Your task to perform on an android device: change the upload size in google photos Image 0: 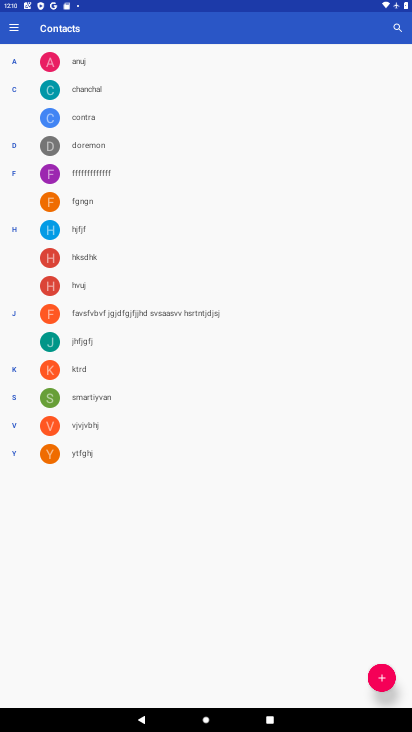
Step 0: press home button
Your task to perform on an android device: change the upload size in google photos Image 1: 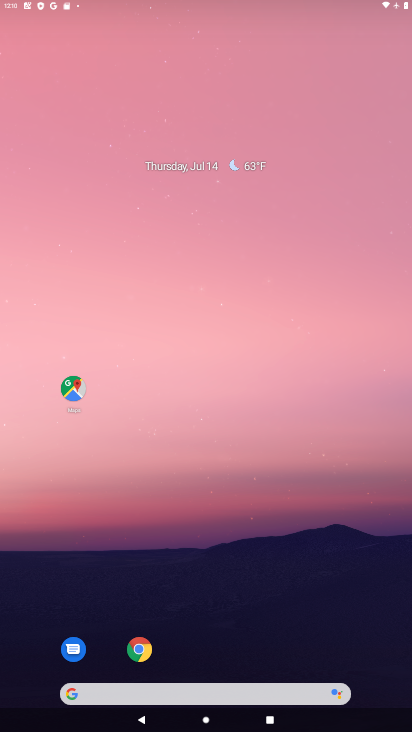
Step 1: drag from (187, 668) to (198, 322)
Your task to perform on an android device: change the upload size in google photos Image 2: 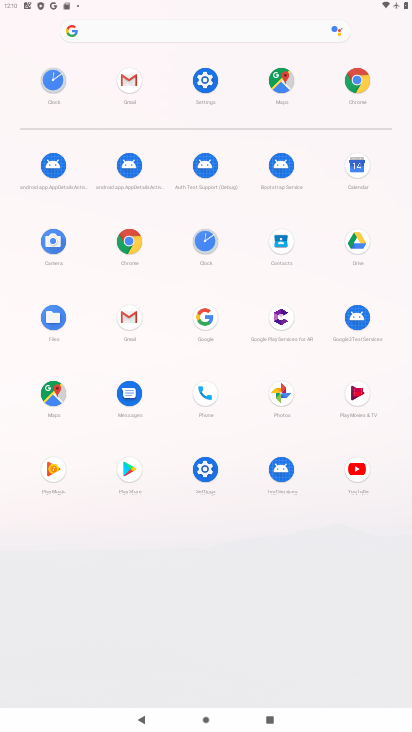
Step 2: click (286, 386)
Your task to perform on an android device: change the upload size in google photos Image 3: 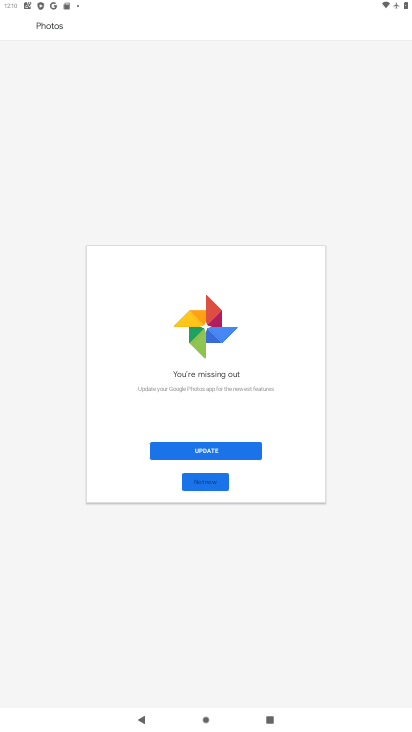
Step 3: click (216, 472)
Your task to perform on an android device: change the upload size in google photos Image 4: 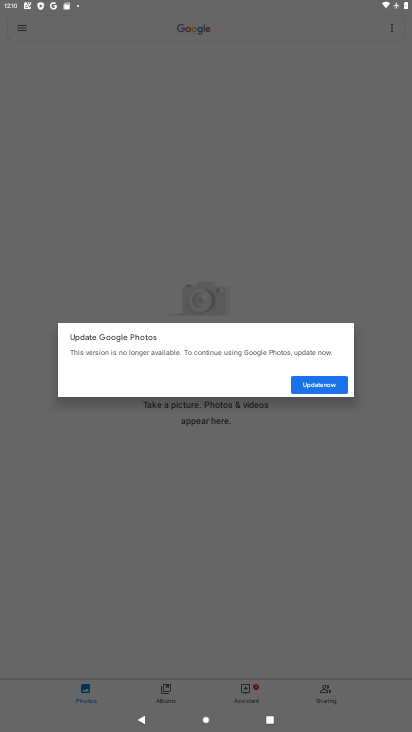
Step 4: click (304, 375)
Your task to perform on an android device: change the upload size in google photos Image 5: 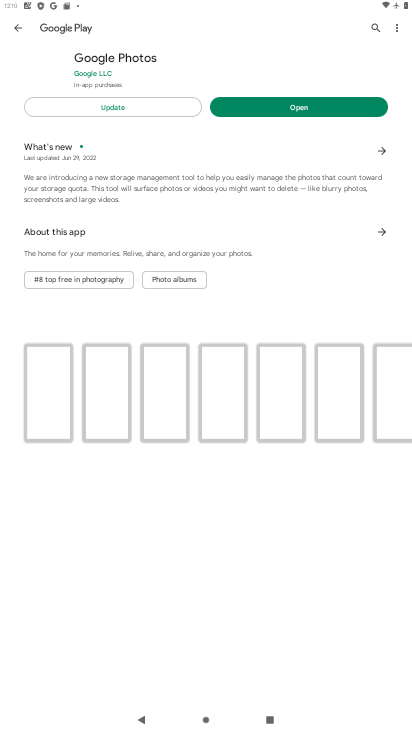
Step 5: press back button
Your task to perform on an android device: change the upload size in google photos Image 6: 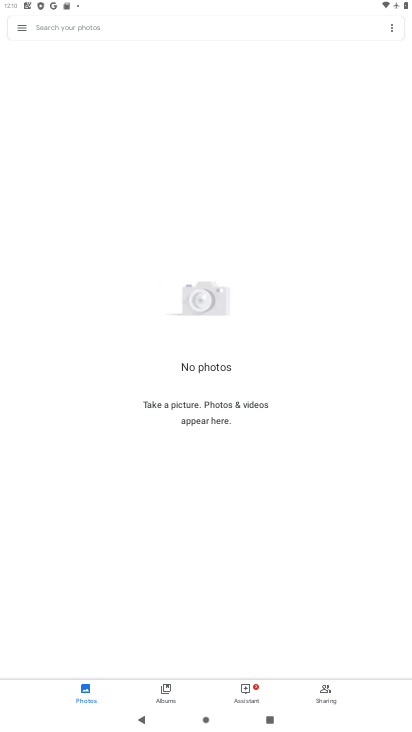
Step 6: click (16, 24)
Your task to perform on an android device: change the upload size in google photos Image 7: 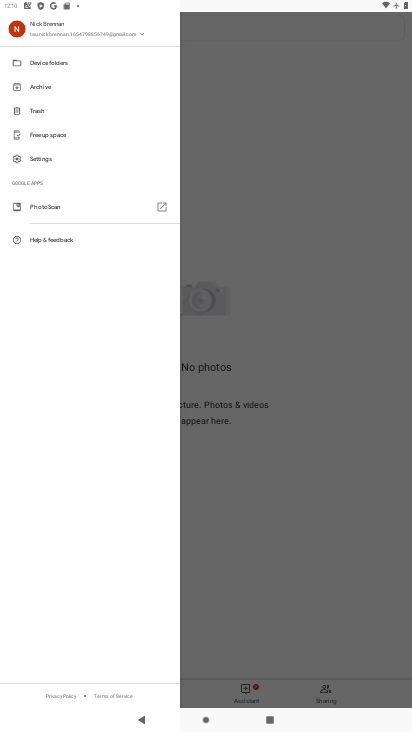
Step 7: click (47, 146)
Your task to perform on an android device: change the upload size in google photos Image 8: 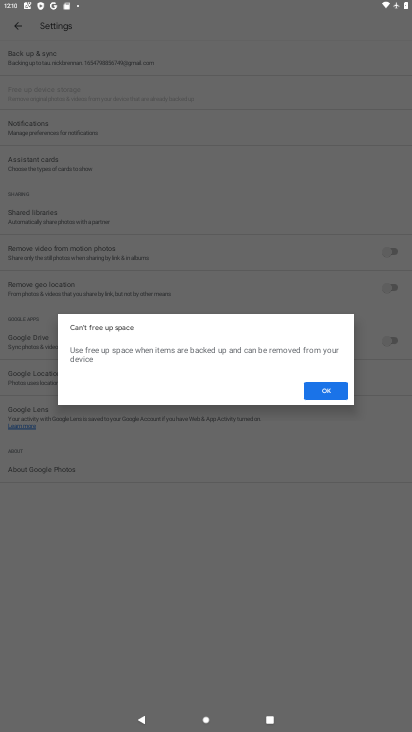
Step 8: click (17, 20)
Your task to perform on an android device: change the upload size in google photos Image 9: 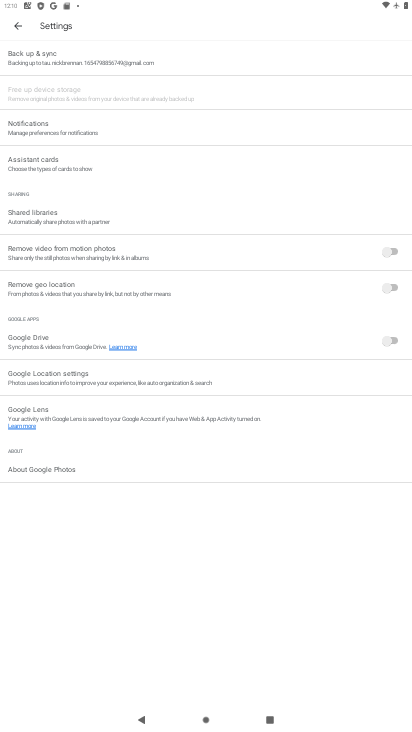
Step 9: click (15, 27)
Your task to perform on an android device: change the upload size in google photos Image 10: 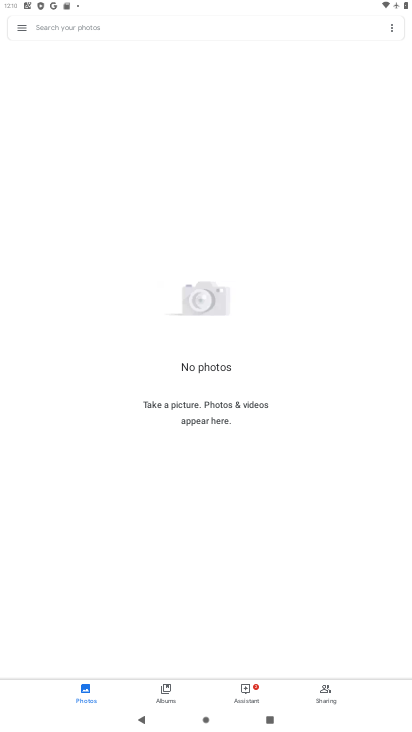
Step 10: click (27, 32)
Your task to perform on an android device: change the upload size in google photos Image 11: 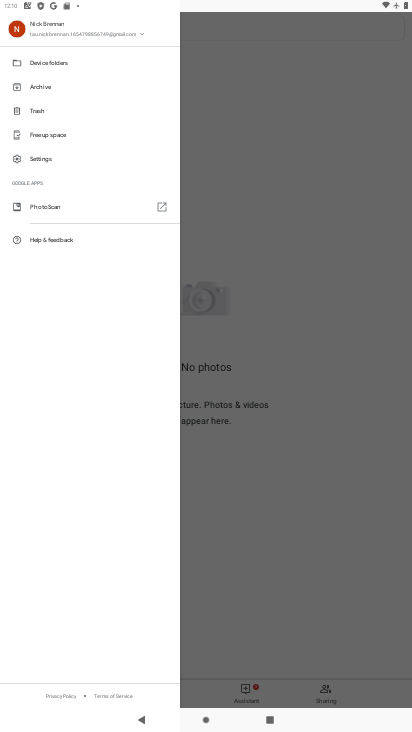
Step 11: click (28, 150)
Your task to perform on an android device: change the upload size in google photos Image 12: 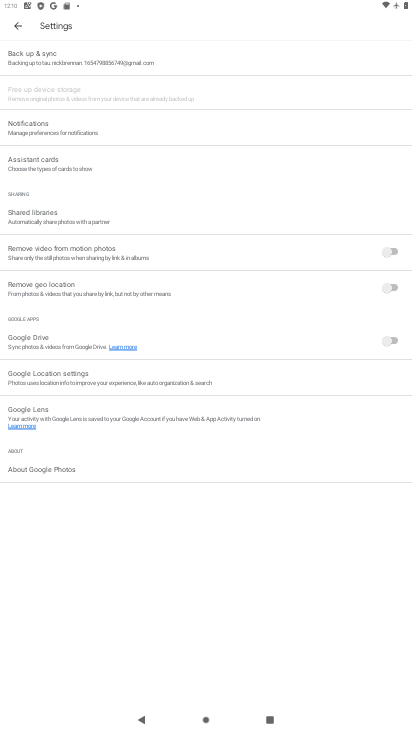
Step 12: click (43, 132)
Your task to perform on an android device: change the upload size in google photos Image 13: 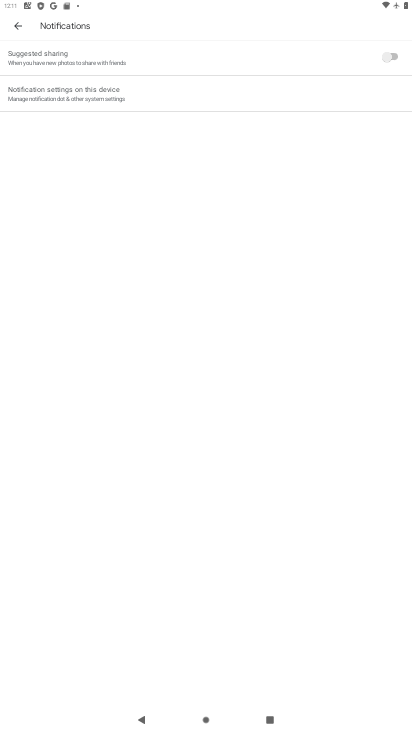
Step 13: click (16, 25)
Your task to perform on an android device: change the upload size in google photos Image 14: 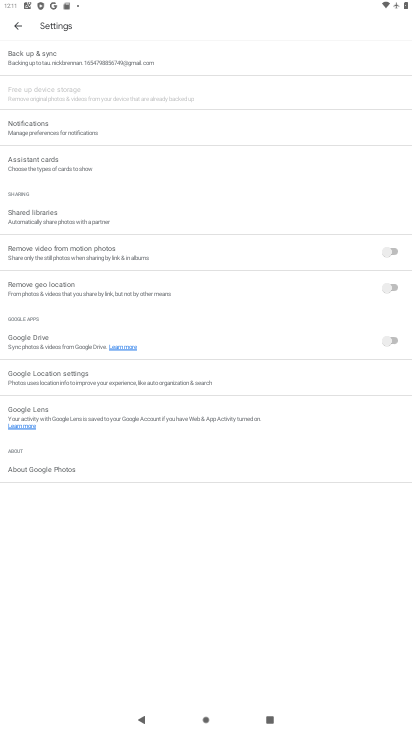
Step 14: click (86, 65)
Your task to perform on an android device: change the upload size in google photos Image 15: 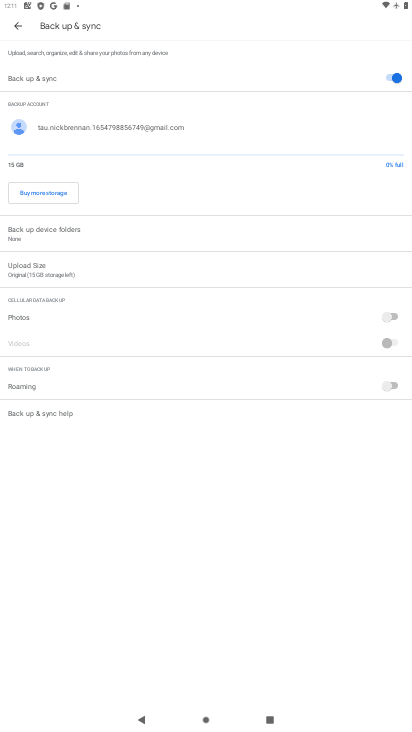
Step 15: click (56, 267)
Your task to perform on an android device: change the upload size in google photos Image 16: 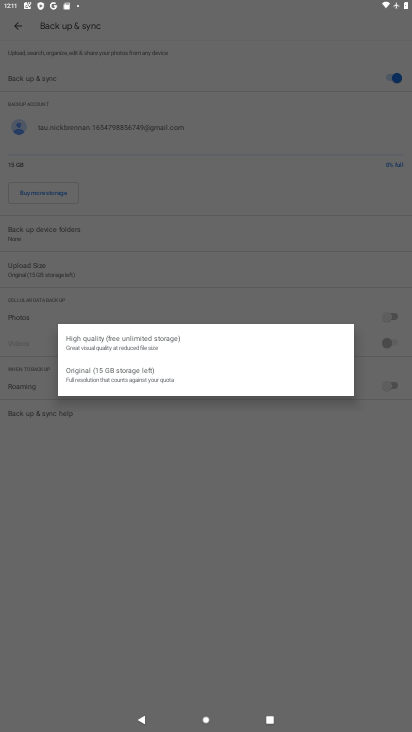
Step 16: click (76, 330)
Your task to perform on an android device: change the upload size in google photos Image 17: 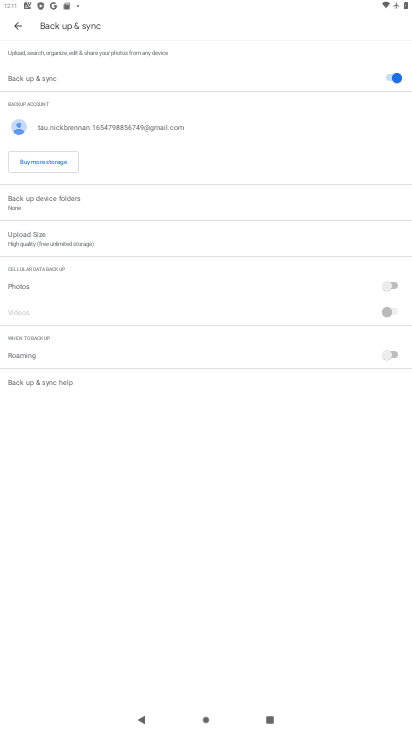
Step 17: task complete